Your task to perform on an android device: Open my contact list Image 0: 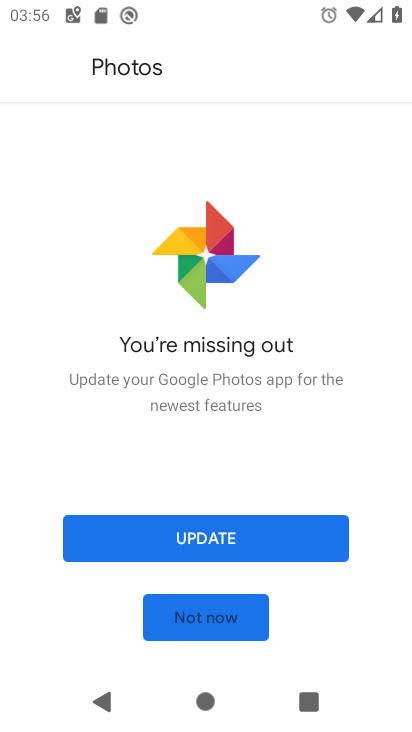
Step 0: press home button
Your task to perform on an android device: Open my contact list Image 1: 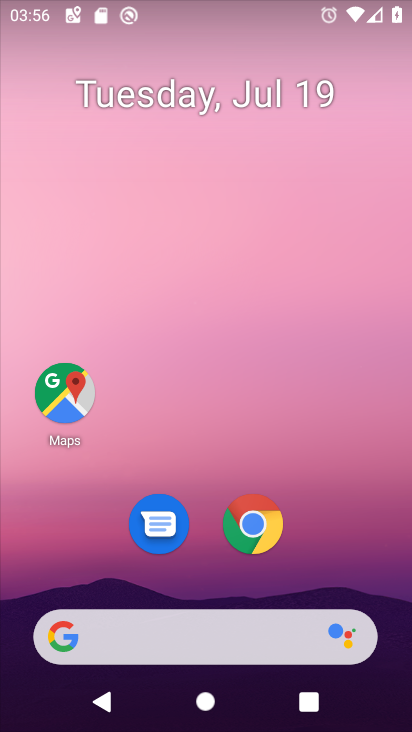
Step 1: drag from (336, 575) to (341, 82)
Your task to perform on an android device: Open my contact list Image 2: 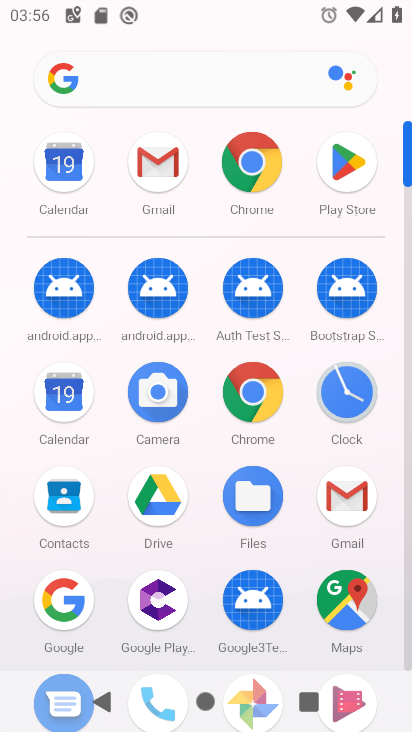
Step 2: click (74, 486)
Your task to perform on an android device: Open my contact list Image 3: 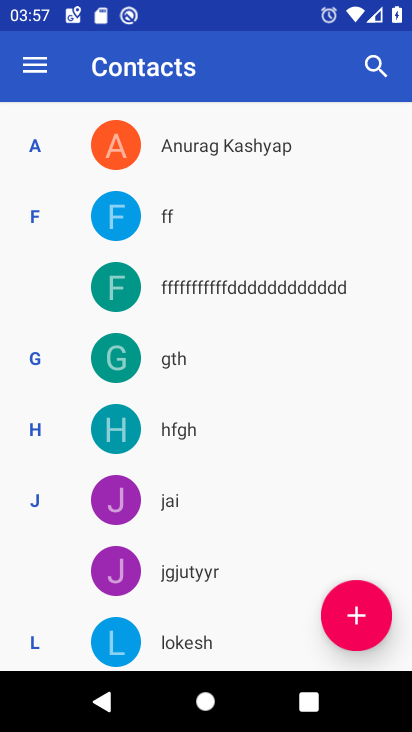
Step 3: task complete